Your task to perform on an android device: Open Amazon Image 0: 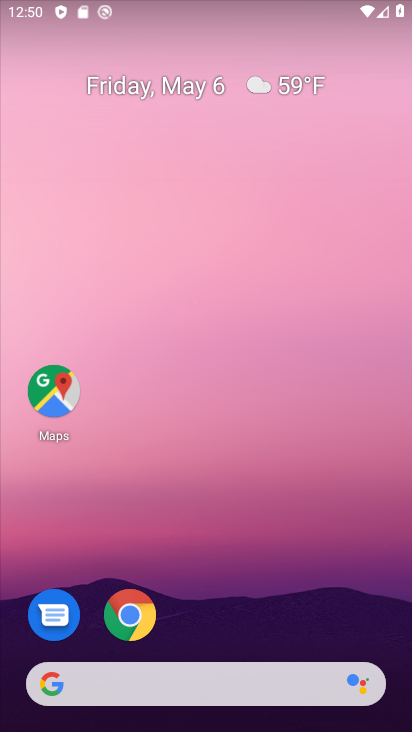
Step 0: drag from (293, 560) to (322, 0)
Your task to perform on an android device: Open Amazon Image 1: 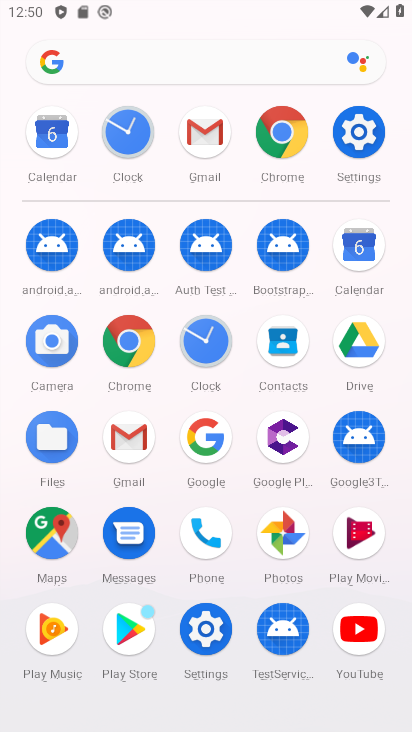
Step 1: click (280, 135)
Your task to perform on an android device: Open Amazon Image 2: 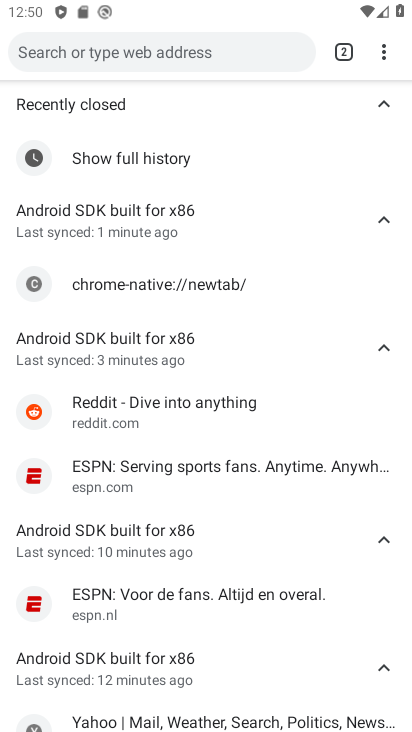
Step 2: drag from (383, 51) to (275, 157)
Your task to perform on an android device: Open Amazon Image 3: 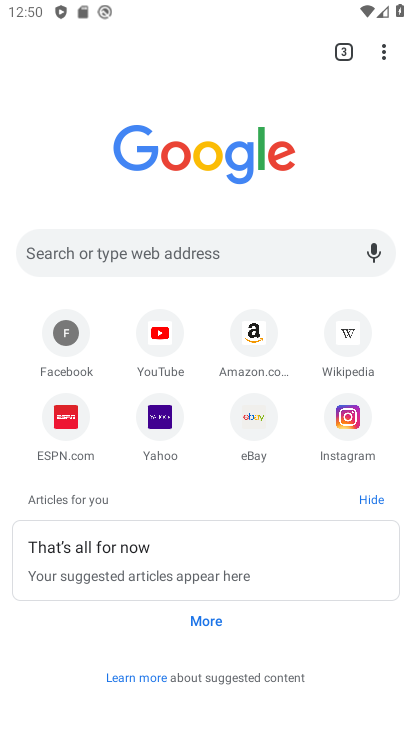
Step 3: click (258, 327)
Your task to perform on an android device: Open Amazon Image 4: 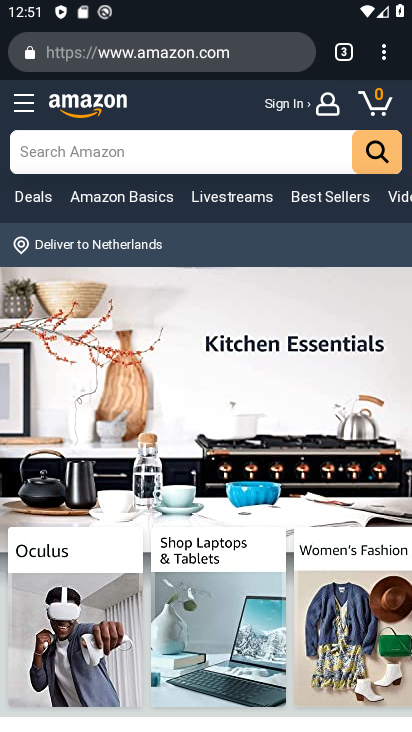
Step 4: task complete